Your task to perform on an android device: open chrome privacy settings Image 0: 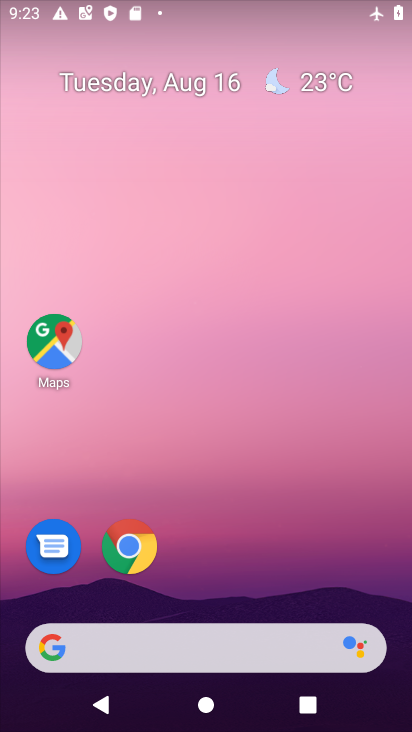
Step 0: click (133, 540)
Your task to perform on an android device: open chrome privacy settings Image 1: 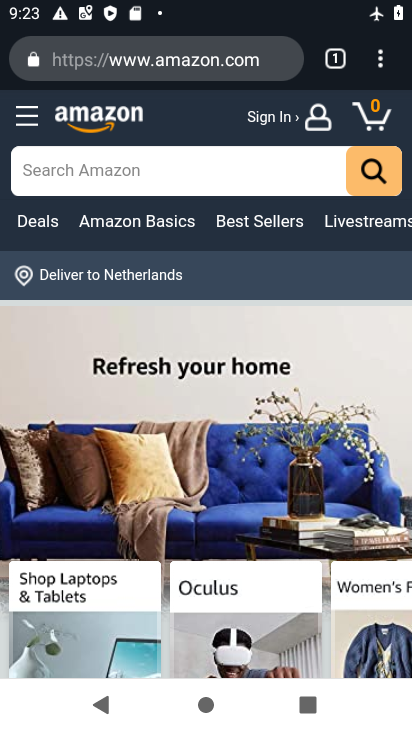
Step 1: click (379, 62)
Your task to perform on an android device: open chrome privacy settings Image 2: 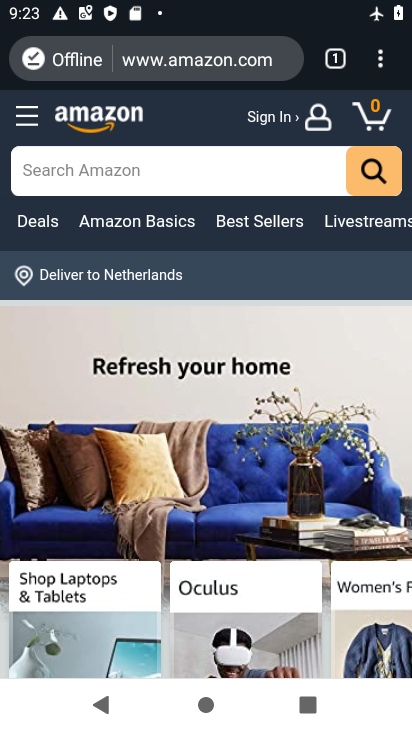
Step 2: click (379, 62)
Your task to perform on an android device: open chrome privacy settings Image 3: 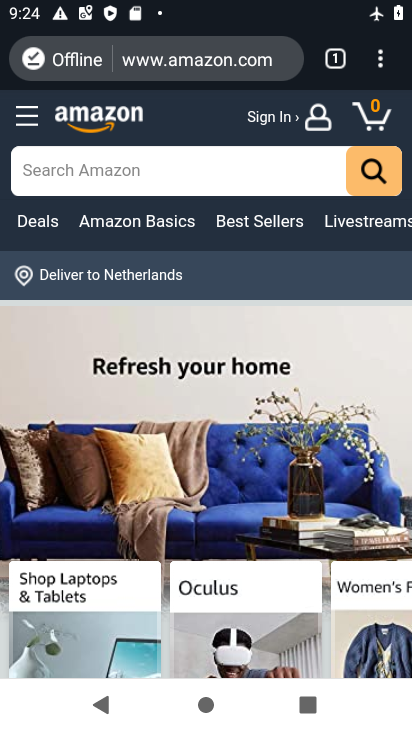
Step 3: click (379, 62)
Your task to perform on an android device: open chrome privacy settings Image 4: 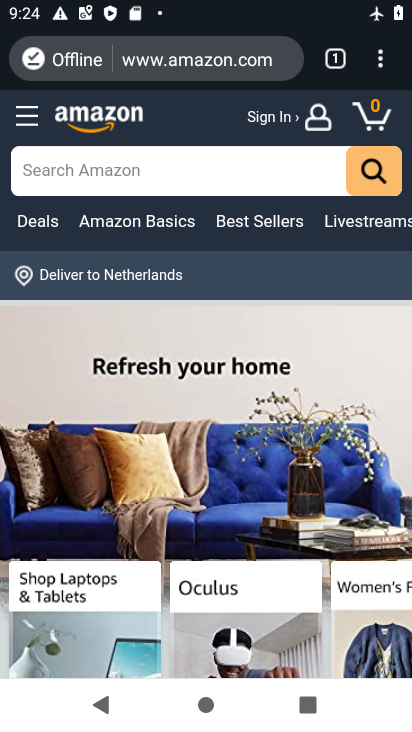
Step 4: click (379, 62)
Your task to perform on an android device: open chrome privacy settings Image 5: 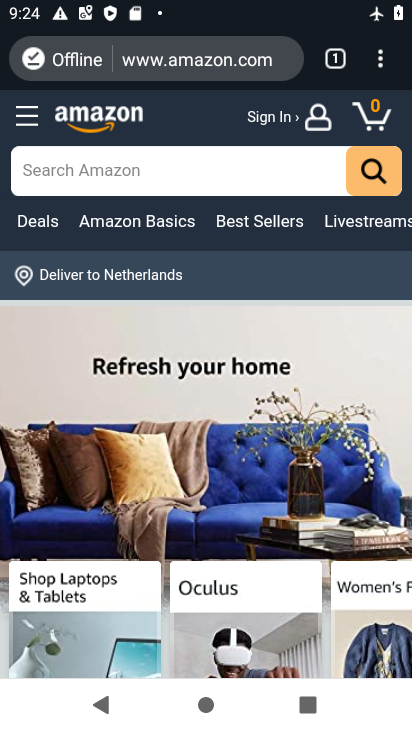
Step 5: click (379, 72)
Your task to perform on an android device: open chrome privacy settings Image 6: 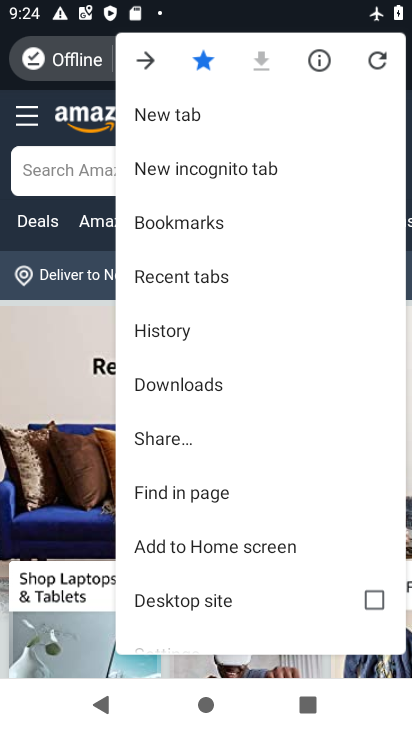
Step 6: drag from (248, 484) to (265, 57)
Your task to perform on an android device: open chrome privacy settings Image 7: 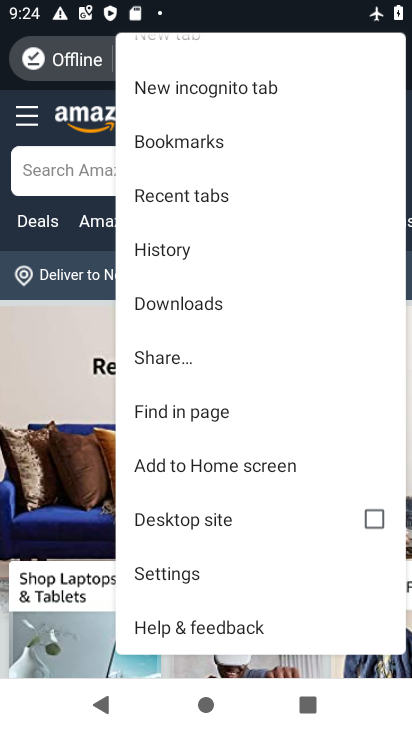
Step 7: click (179, 571)
Your task to perform on an android device: open chrome privacy settings Image 8: 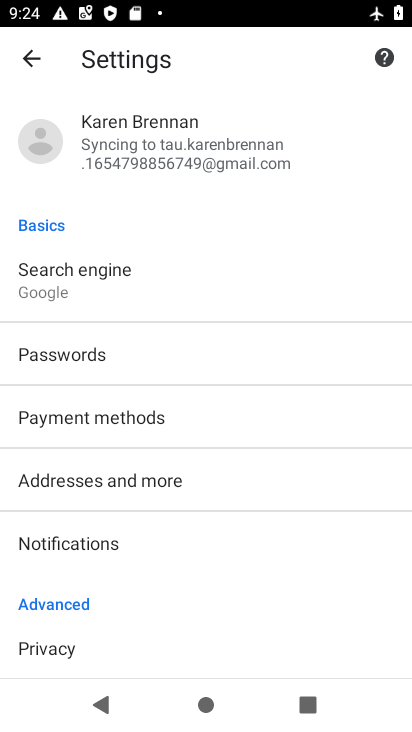
Step 8: drag from (249, 534) to (279, 240)
Your task to perform on an android device: open chrome privacy settings Image 9: 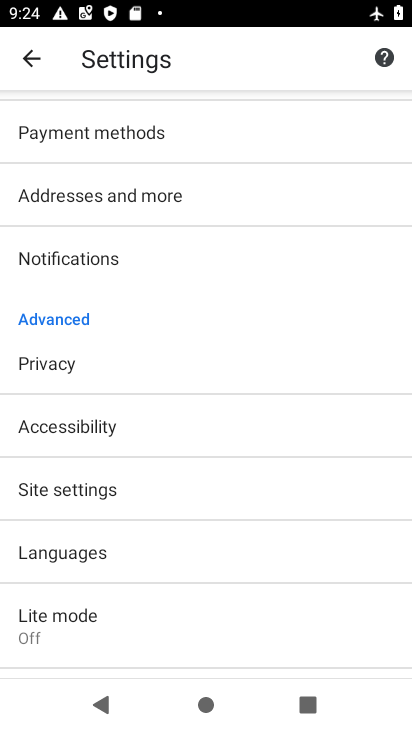
Step 9: click (158, 373)
Your task to perform on an android device: open chrome privacy settings Image 10: 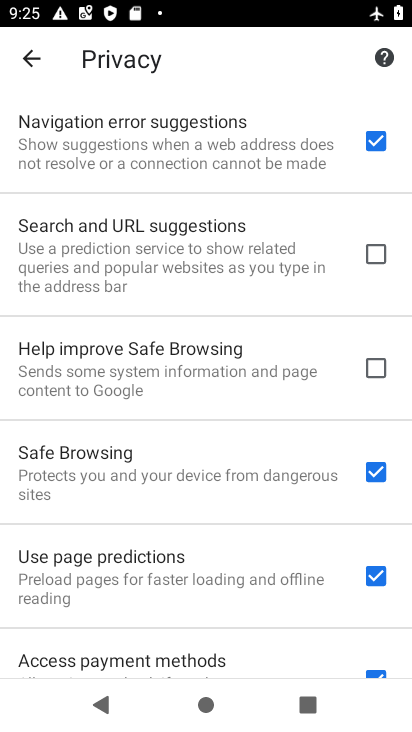
Step 10: task complete